Your task to perform on an android device: Go to Reddit.com Image 0: 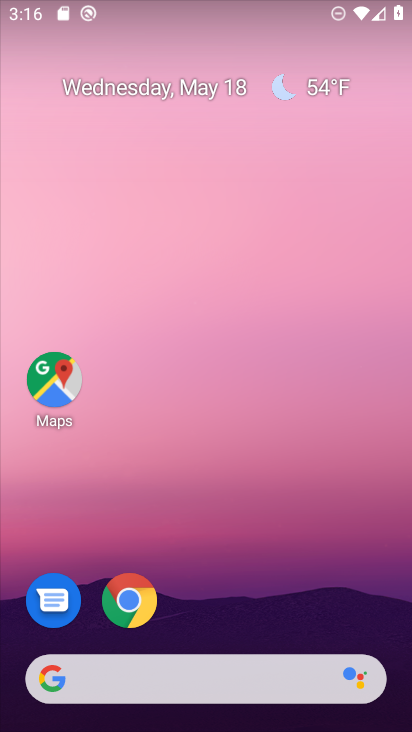
Step 0: click (139, 604)
Your task to perform on an android device: Go to Reddit.com Image 1: 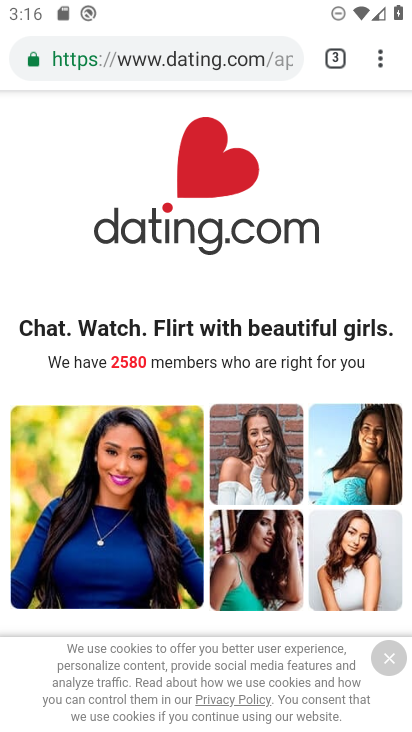
Step 1: click (233, 56)
Your task to perform on an android device: Go to Reddit.com Image 2: 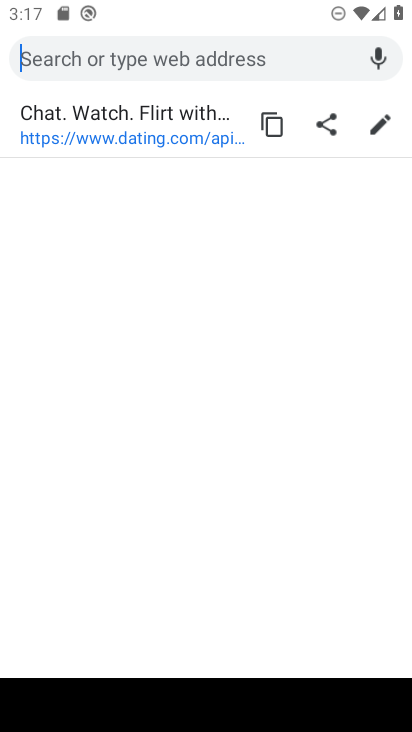
Step 2: type "Reddit.com"
Your task to perform on an android device: Go to Reddit.com Image 3: 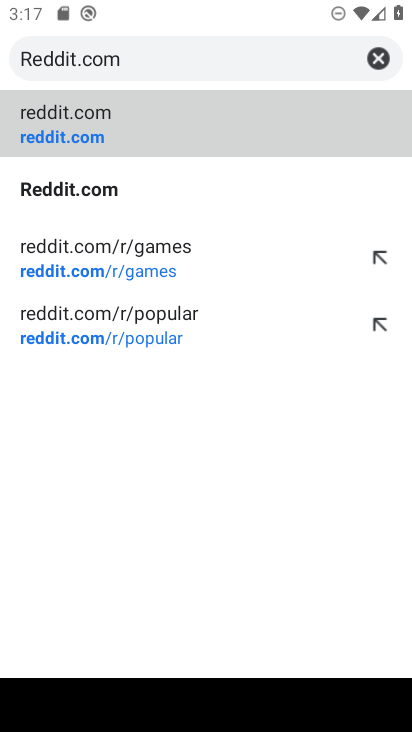
Step 3: click (172, 134)
Your task to perform on an android device: Go to Reddit.com Image 4: 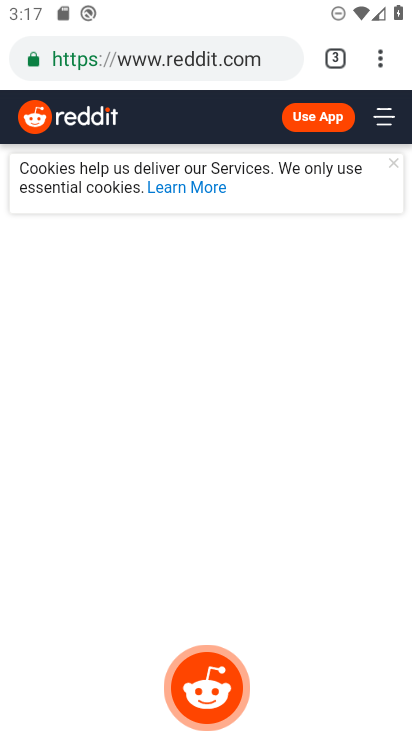
Step 4: task complete